Your task to perform on an android device: check out phone information Image 0: 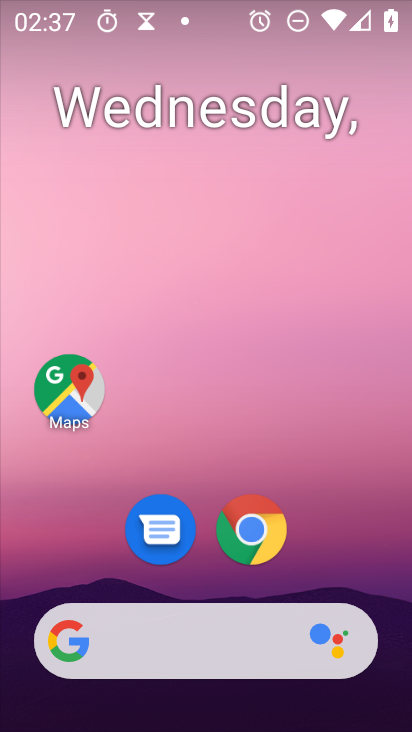
Step 0: drag from (339, 640) to (342, 36)
Your task to perform on an android device: check out phone information Image 1: 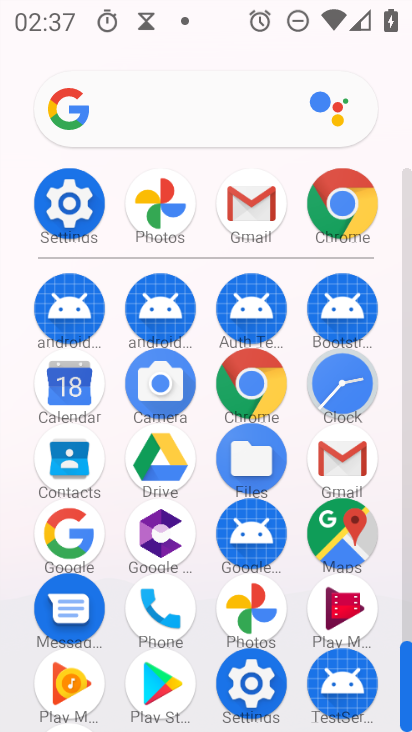
Step 1: click (59, 190)
Your task to perform on an android device: check out phone information Image 2: 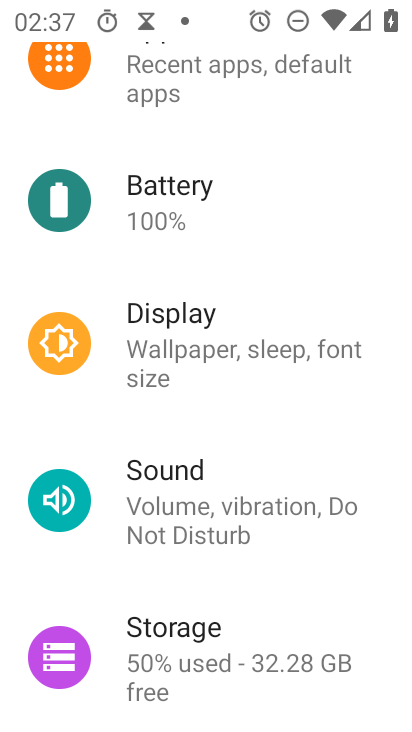
Step 2: drag from (220, 658) to (267, 4)
Your task to perform on an android device: check out phone information Image 3: 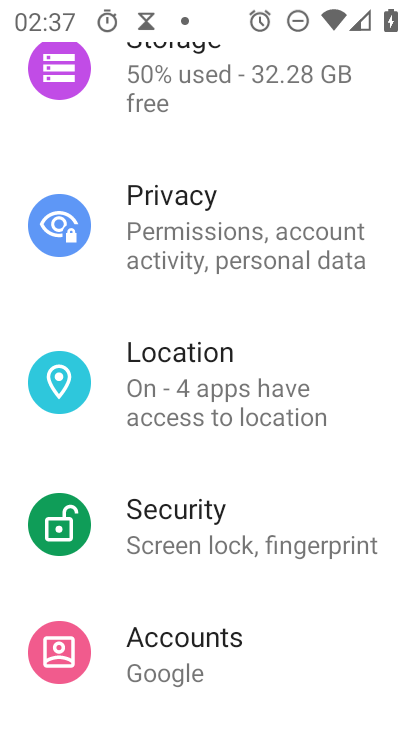
Step 3: drag from (289, 664) to (346, 156)
Your task to perform on an android device: check out phone information Image 4: 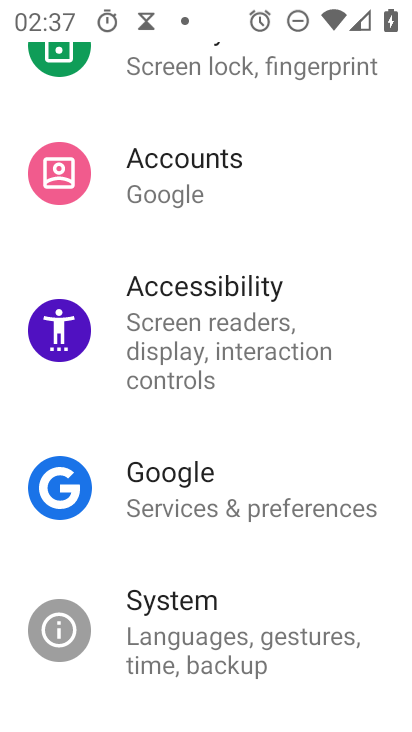
Step 4: drag from (278, 657) to (296, 140)
Your task to perform on an android device: check out phone information Image 5: 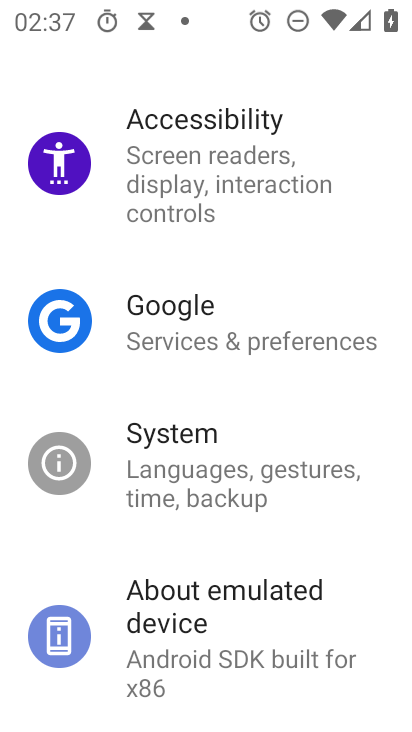
Step 5: click (249, 653)
Your task to perform on an android device: check out phone information Image 6: 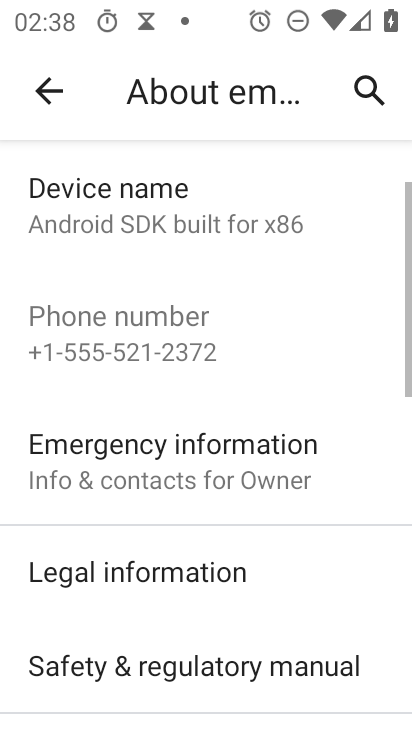
Step 6: task complete